Your task to perform on an android device: toggle show notifications on the lock screen Image 0: 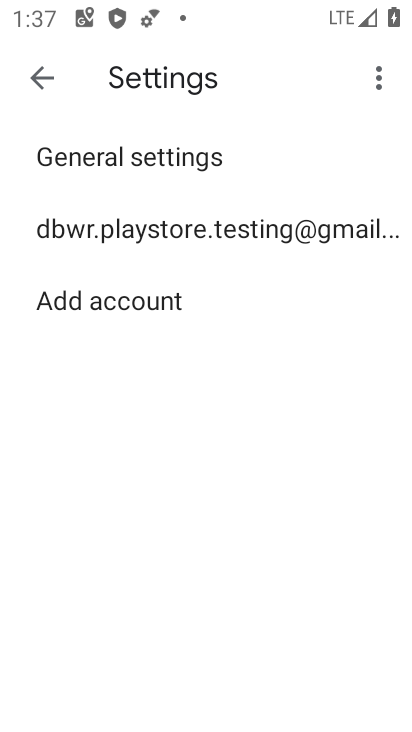
Step 0: click (202, 225)
Your task to perform on an android device: toggle show notifications on the lock screen Image 1: 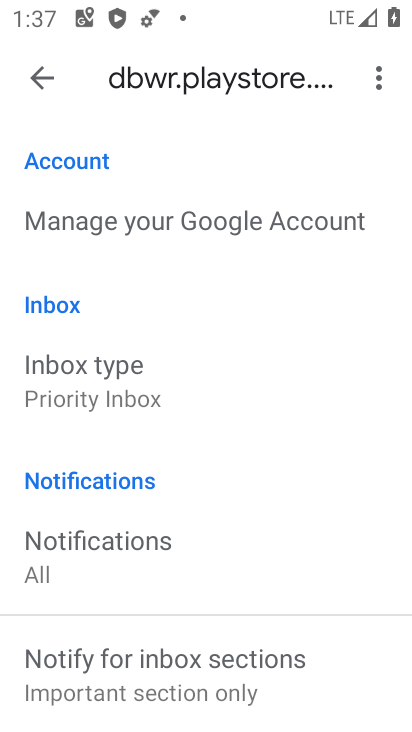
Step 1: press home button
Your task to perform on an android device: toggle show notifications on the lock screen Image 2: 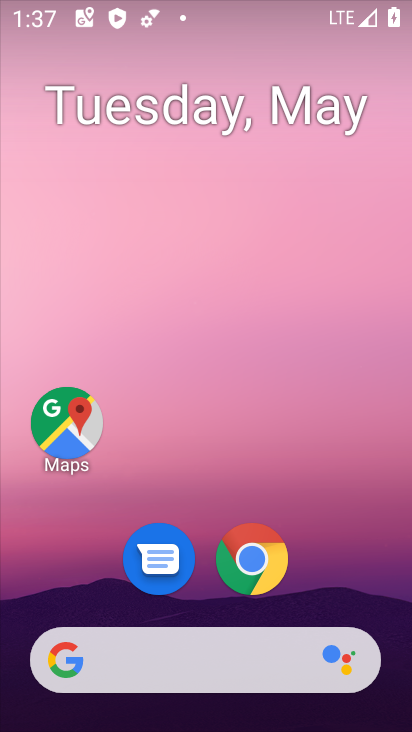
Step 2: drag from (344, 566) to (213, 124)
Your task to perform on an android device: toggle show notifications on the lock screen Image 3: 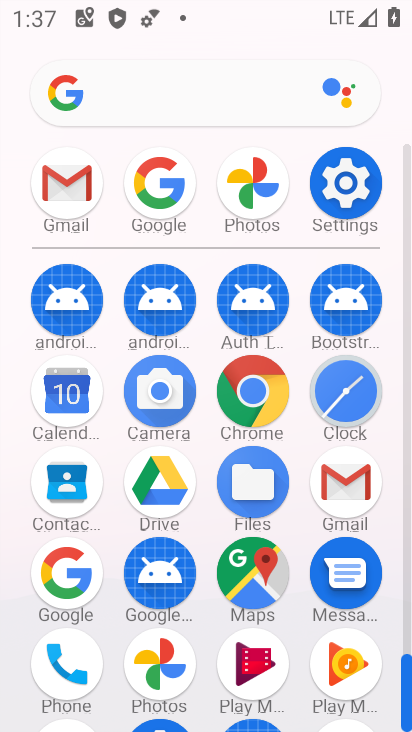
Step 3: click (353, 185)
Your task to perform on an android device: toggle show notifications on the lock screen Image 4: 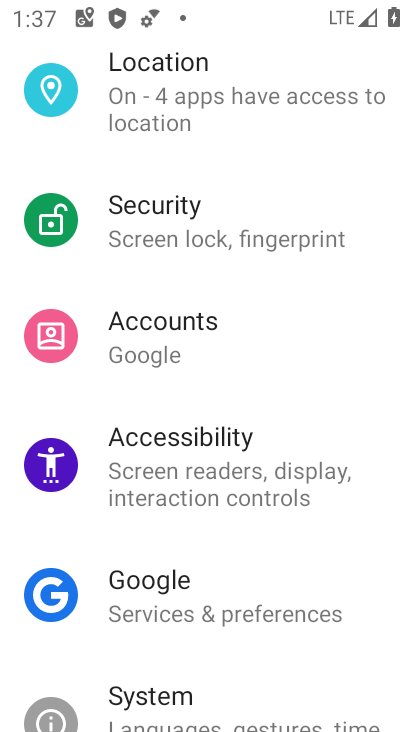
Step 4: drag from (242, 218) to (225, 628)
Your task to perform on an android device: toggle show notifications on the lock screen Image 5: 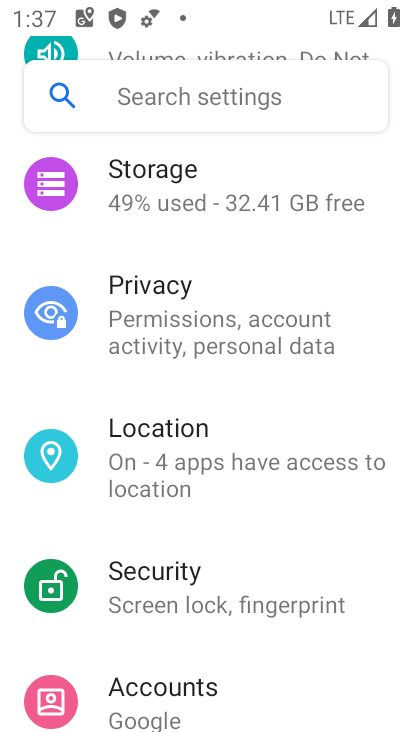
Step 5: drag from (229, 343) to (231, 607)
Your task to perform on an android device: toggle show notifications on the lock screen Image 6: 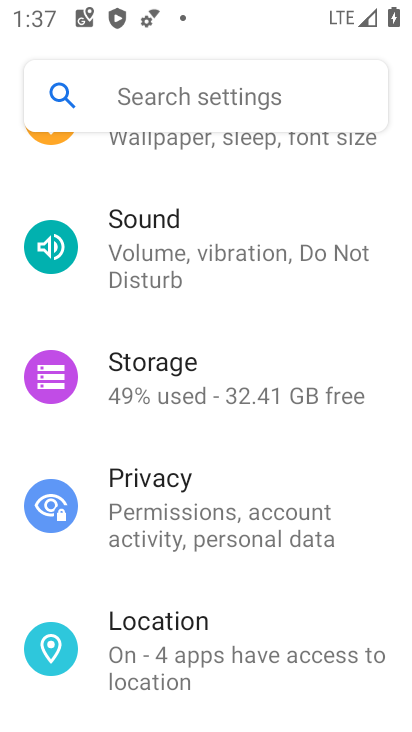
Step 6: drag from (220, 239) to (195, 635)
Your task to perform on an android device: toggle show notifications on the lock screen Image 7: 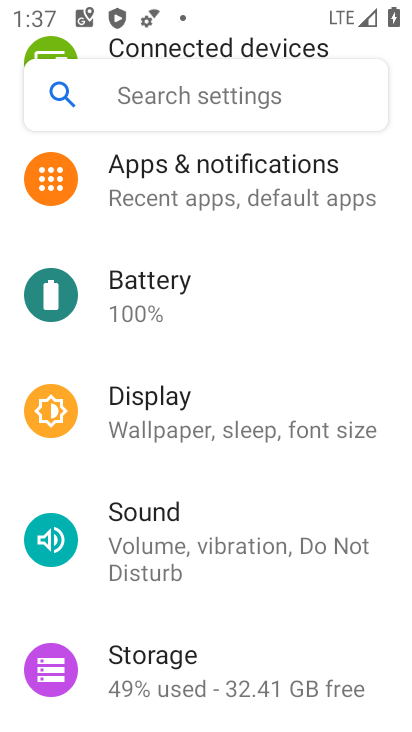
Step 7: click (176, 168)
Your task to perform on an android device: toggle show notifications on the lock screen Image 8: 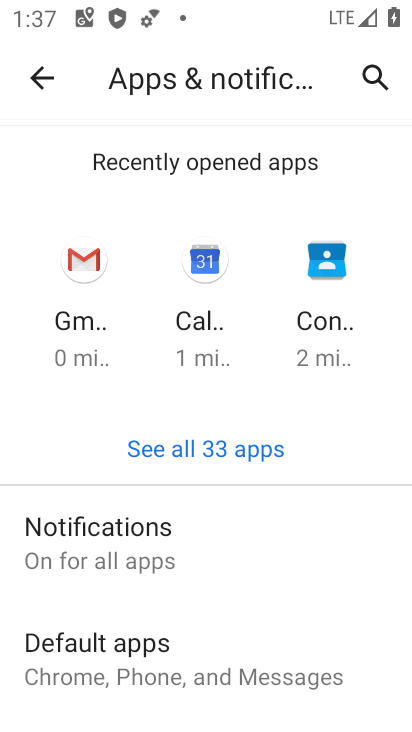
Step 8: click (210, 538)
Your task to perform on an android device: toggle show notifications on the lock screen Image 9: 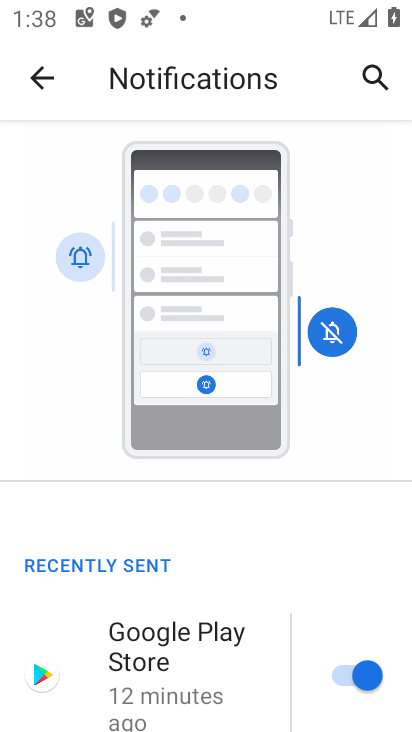
Step 9: drag from (248, 581) to (237, 132)
Your task to perform on an android device: toggle show notifications on the lock screen Image 10: 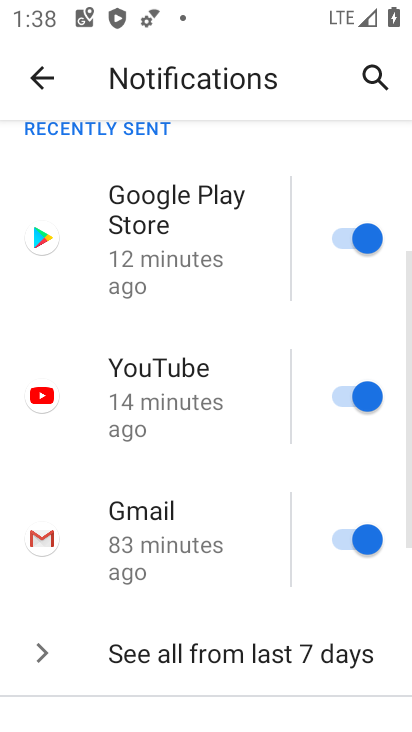
Step 10: drag from (223, 614) to (227, 178)
Your task to perform on an android device: toggle show notifications on the lock screen Image 11: 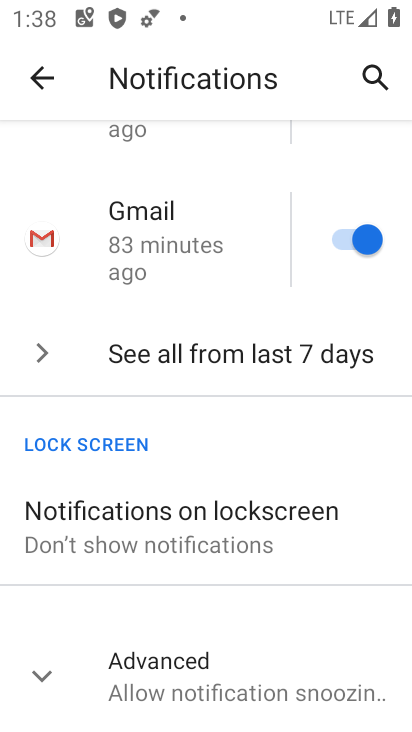
Step 11: click (218, 539)
Your task to perform on an android device: toggle show notifications on the lock screen Image 12: 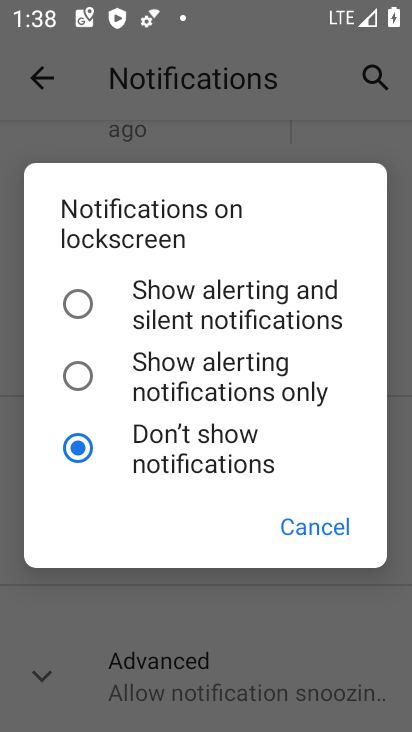
Step 12: click (196, 303)
Your task to perform on an android device: toggle show notifications on the lock screen Image 13: 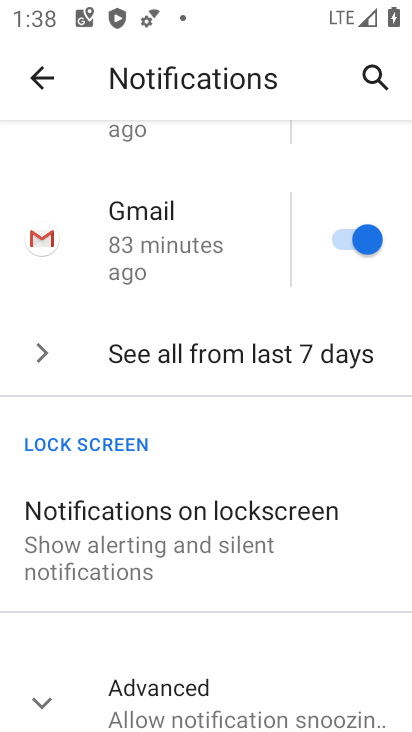
Step 13: task complete